Your task to perform on an android device: Clear the shopping cart on amazon. Add "duracell triple a" to the cart on amazon Image 0: 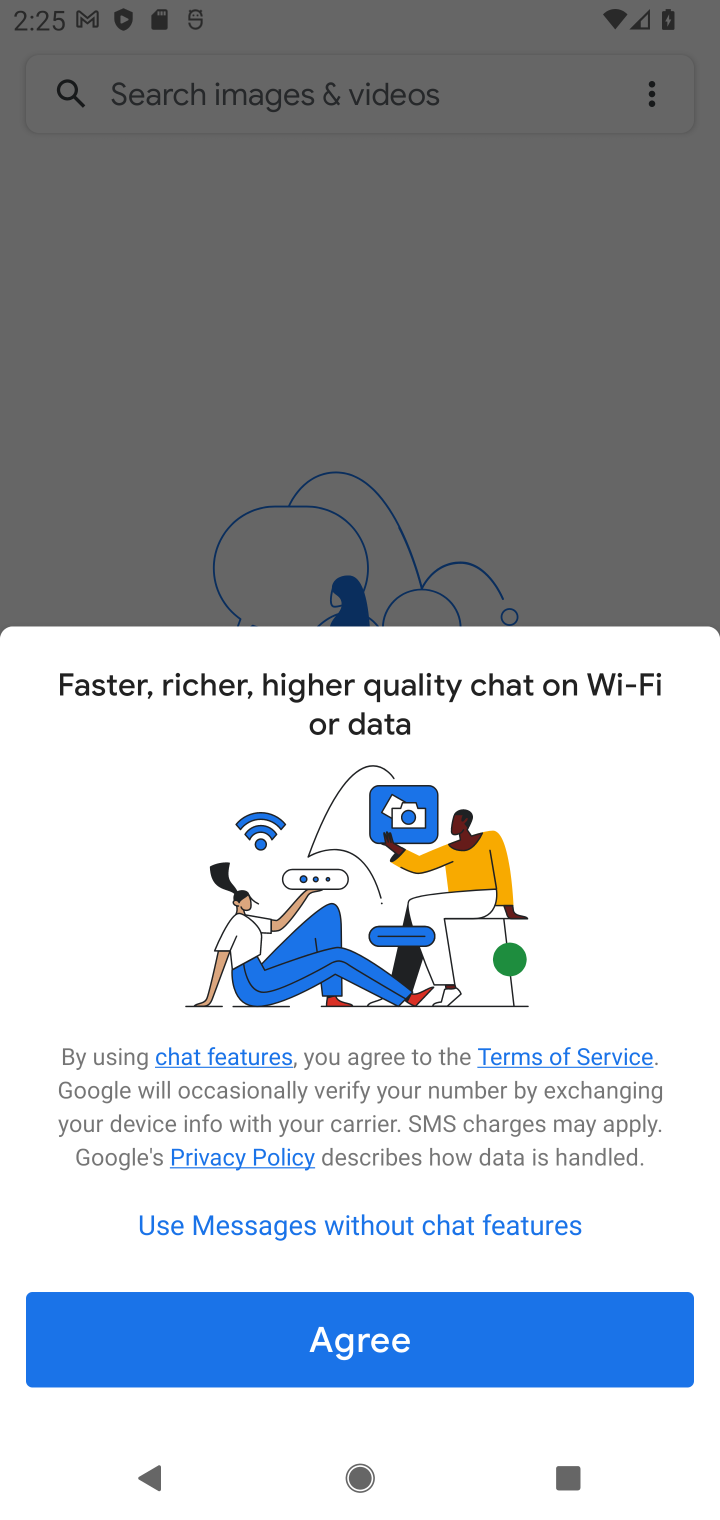
Step 0: press home button
Your task to perform on an android device: Clear the shopping cart on amazon. Add "duracell triple a" to the cart on amazon Image 1: 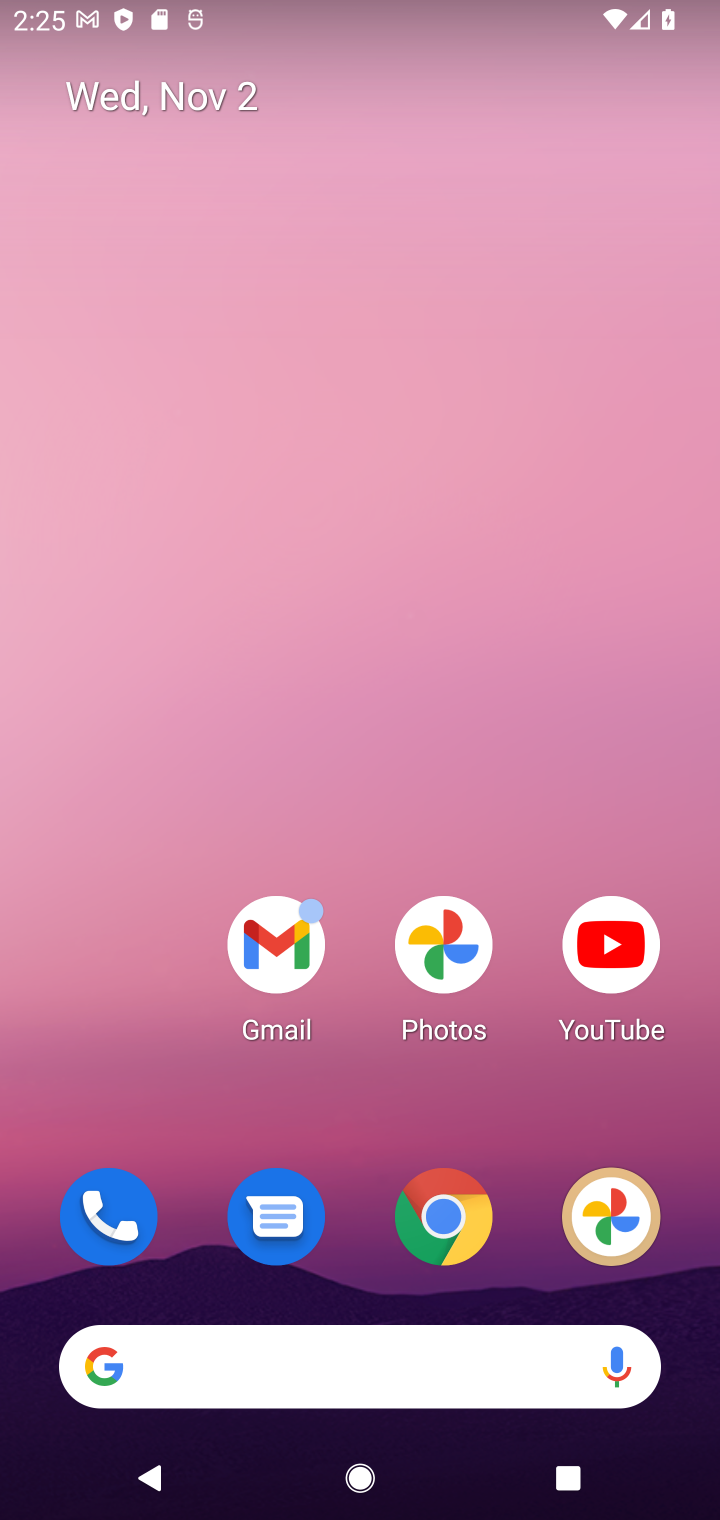
Step 1: click (449, 1219)
Your task to perform on an android device: Clear the shopping cart on amazon. Add "duracell triple a" to the cart on amazon Image 2: 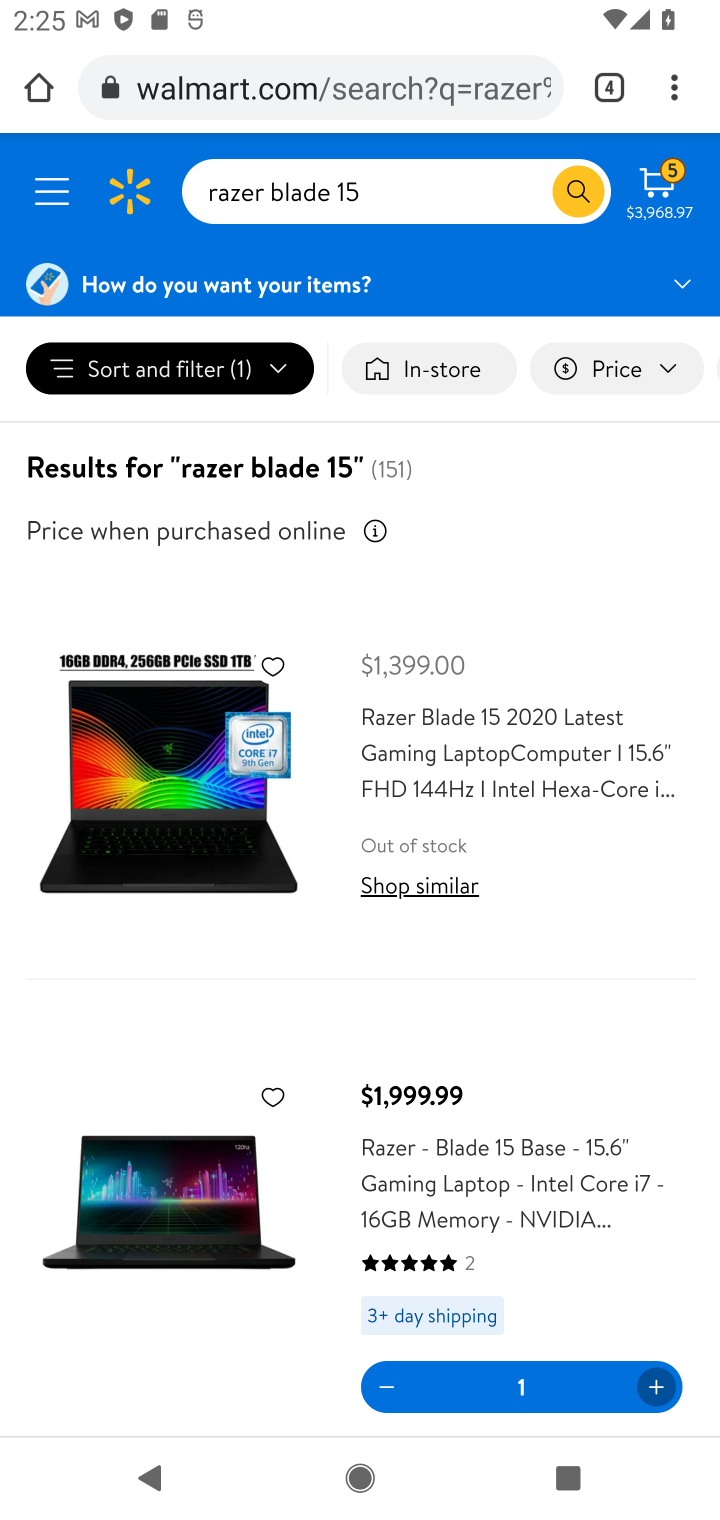
Step 2: click (615, 80)
Your task to perform on an android device: Clear the shopping cart on amazon. Add "duracell triple a" to the cart on amazon Image 3: 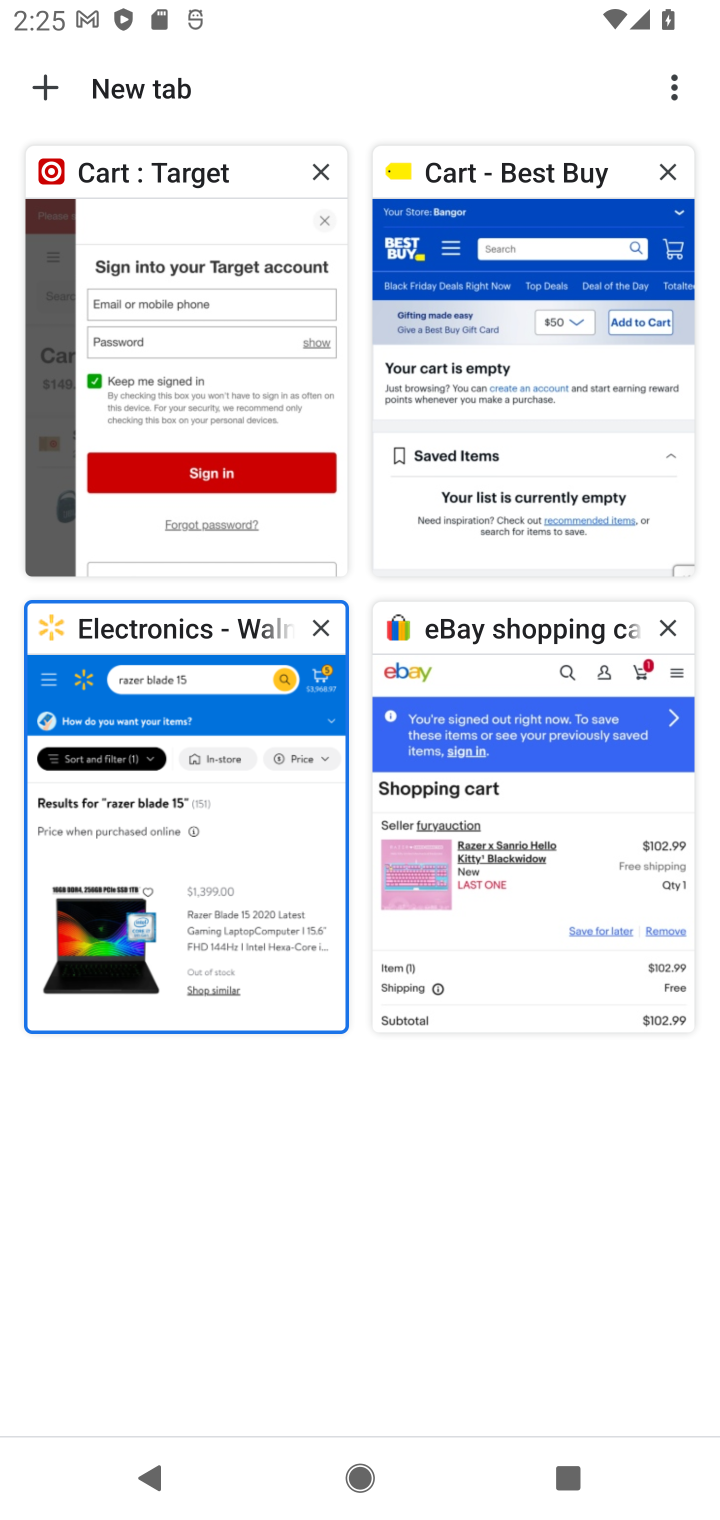
Step 3: click (36, 97)
Your task to perform on an android device: Clear the shopping cart on amazon. Add "duracell triple a" to the cart on amazon Image 4: 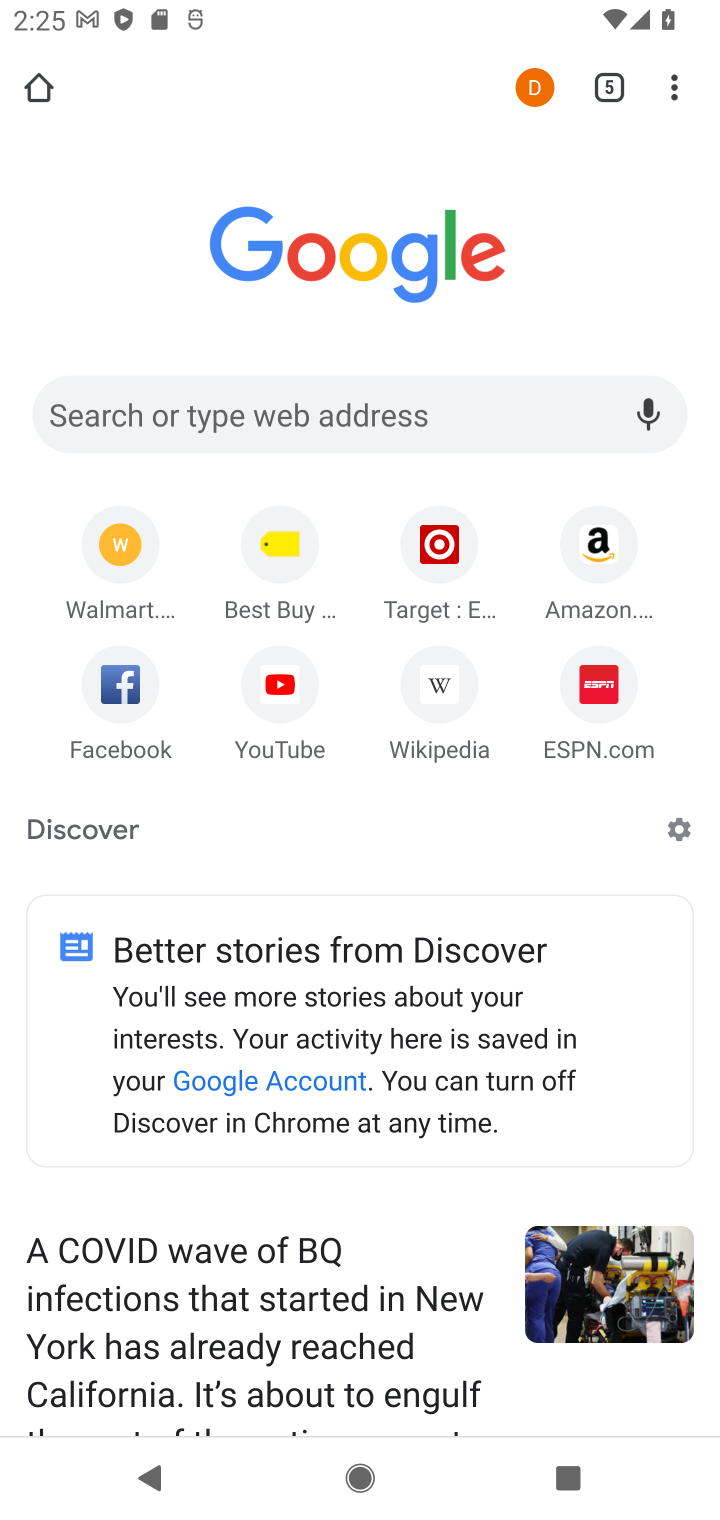
Step 4: click (335, 423)
Your task to perform on an android device: Clear the shopping cart on amazon. Add "duracell triple a" to the cart on amazon Image 5: 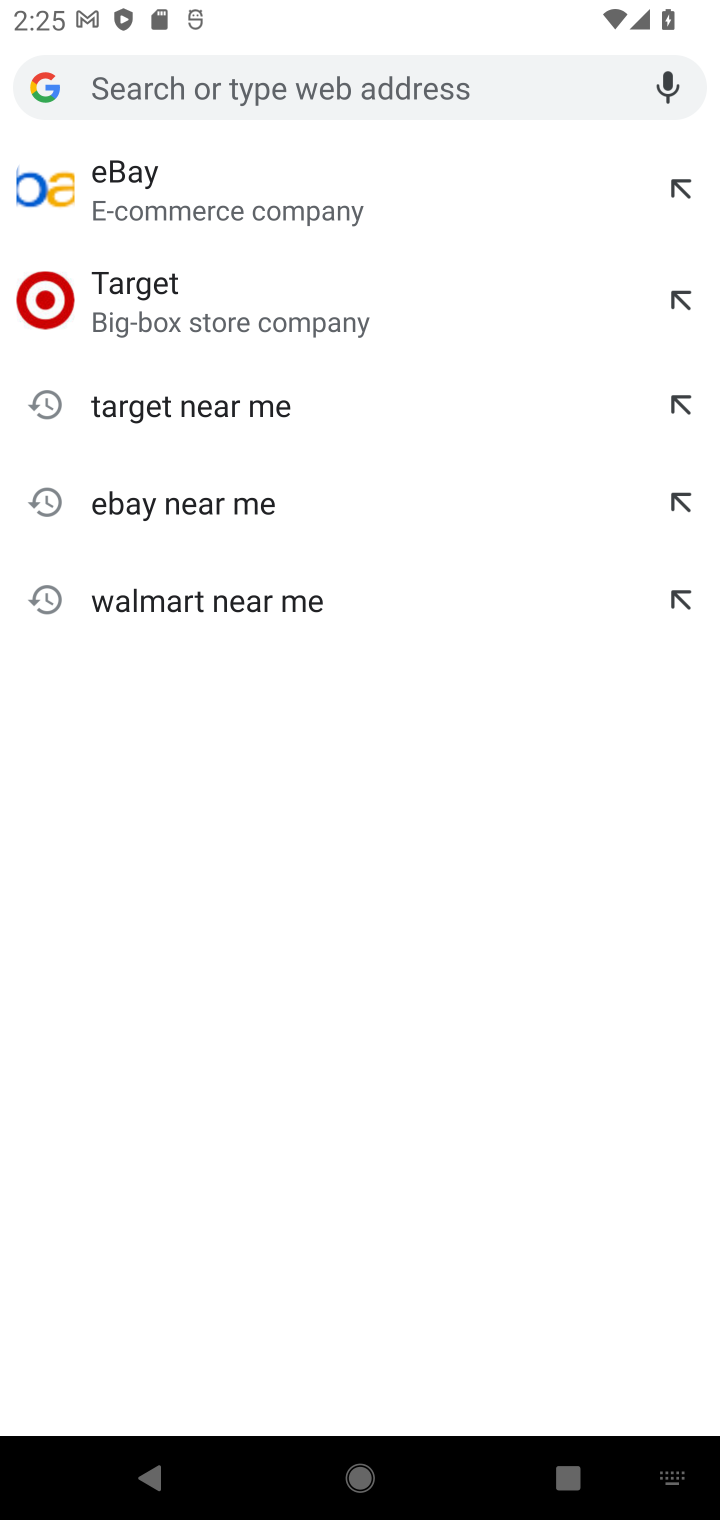
Step 5: type "amazon"
Your task to perform on an android device: Clear the shopping cart on amazon. Add "duracell triple a" to the cart on amazon Image 6: 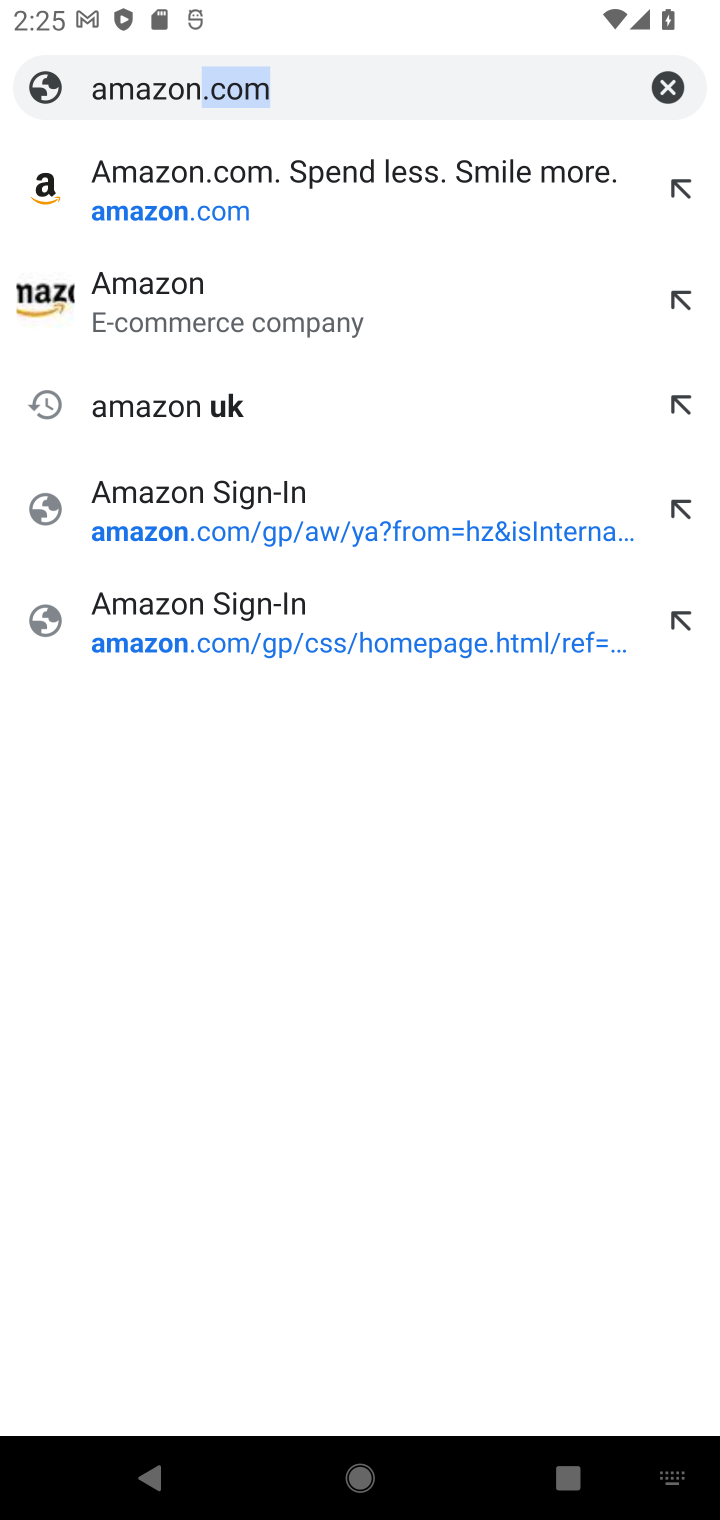
Step 6: click (200, 187)
Your task to perform on an android device: Clear the shopping cart on amazon. Add "duracell triple a" to the cart on amazon Image 7: 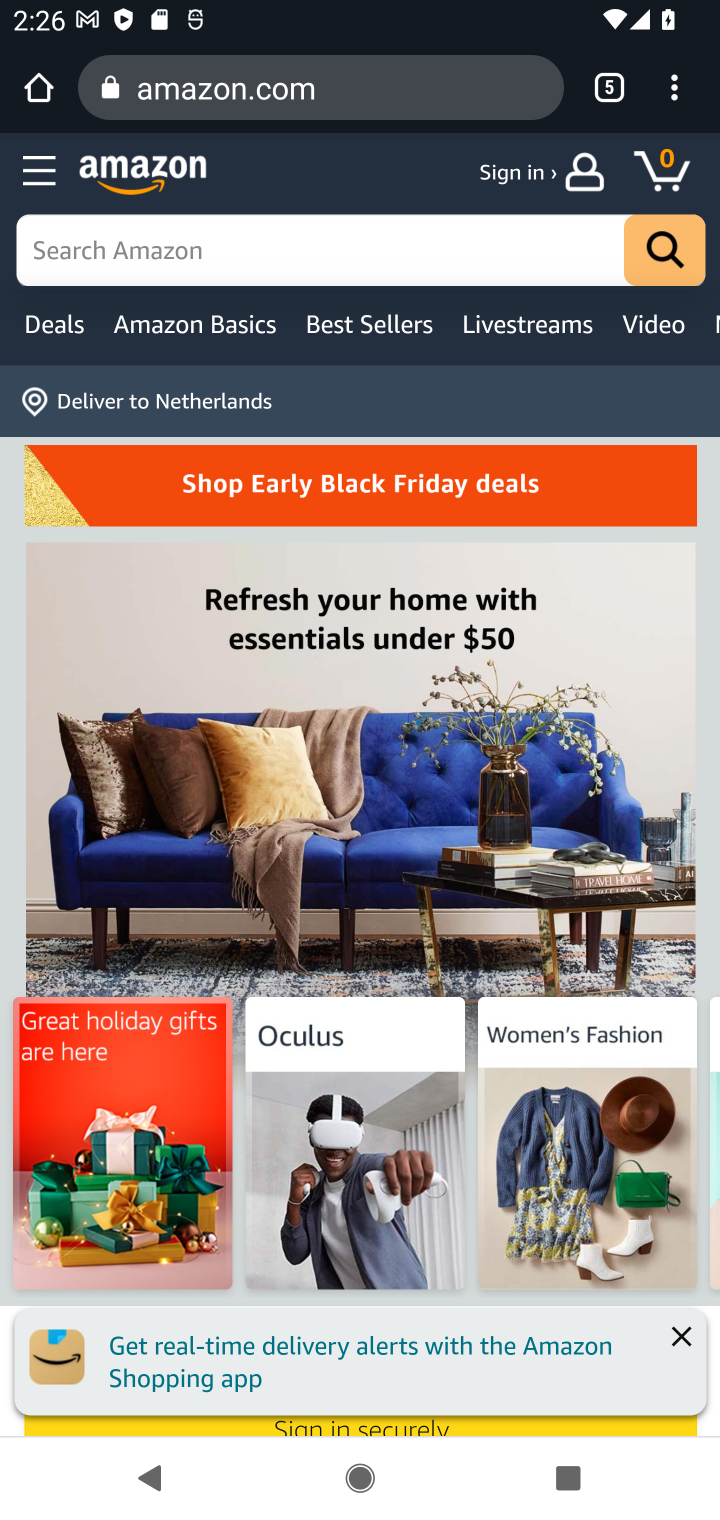
Step 7: click (334, 260)
Your task to perform on an android device: Clear the shopping cart on amazon. Add "duracell triple a" to the cart on amazon Image 8: 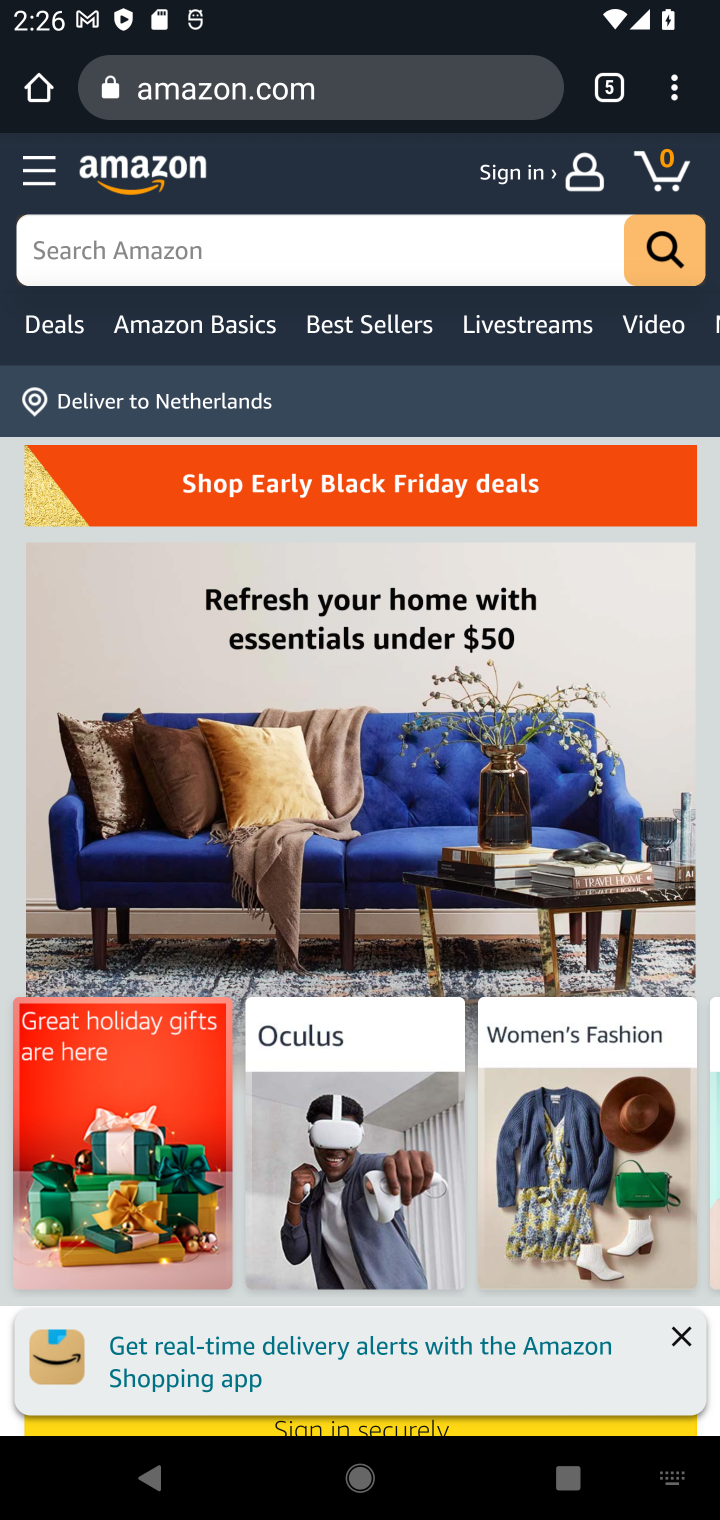
Step 8: type "duracell triple a"
Your task to perform on an android device: Clear the shopping cart on amazon. Add "duracell triple a" to the cart on amazon Image 9: 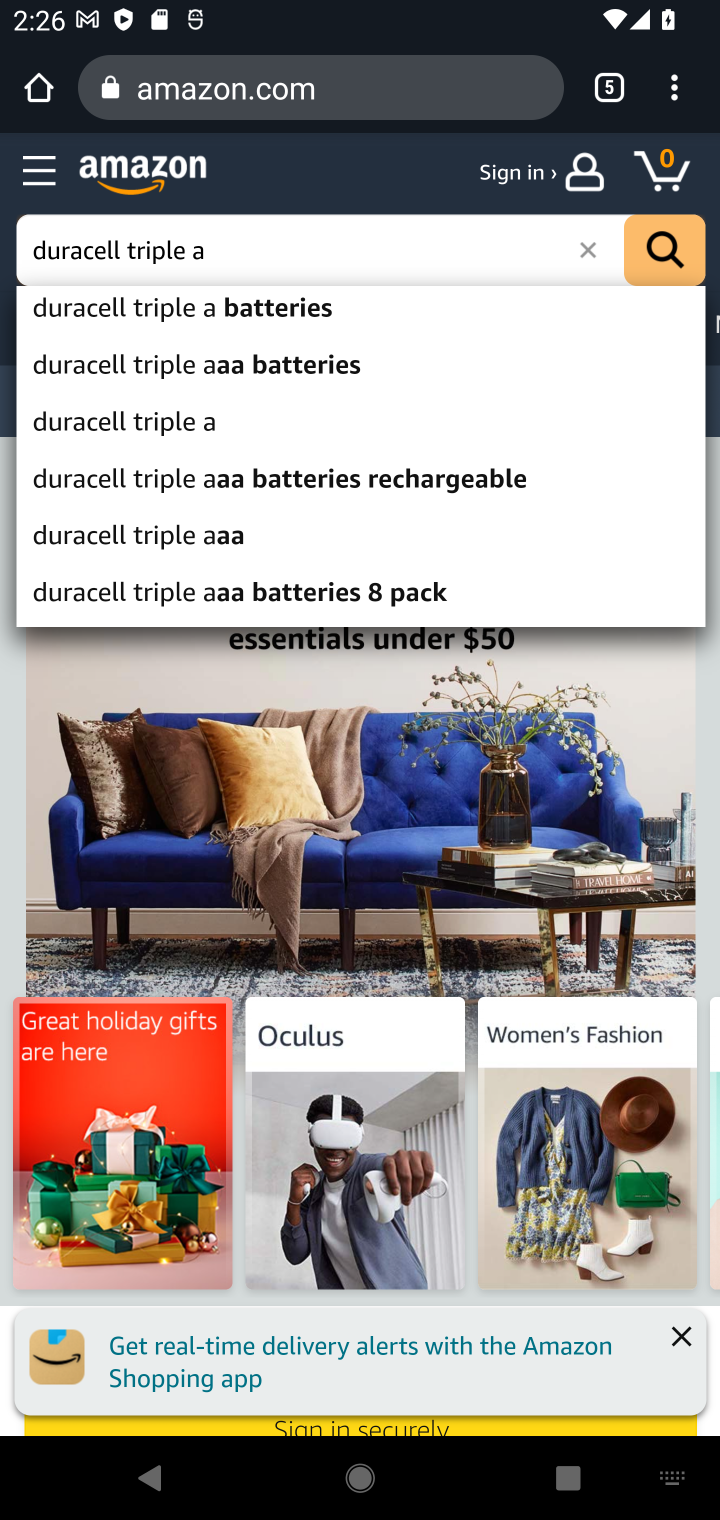
Step 9: click (107, 311)
Your task to perform on an android device: Clear the shopping cart on amazon. Add "duracell triple a" to the cart on amazon Image 10: 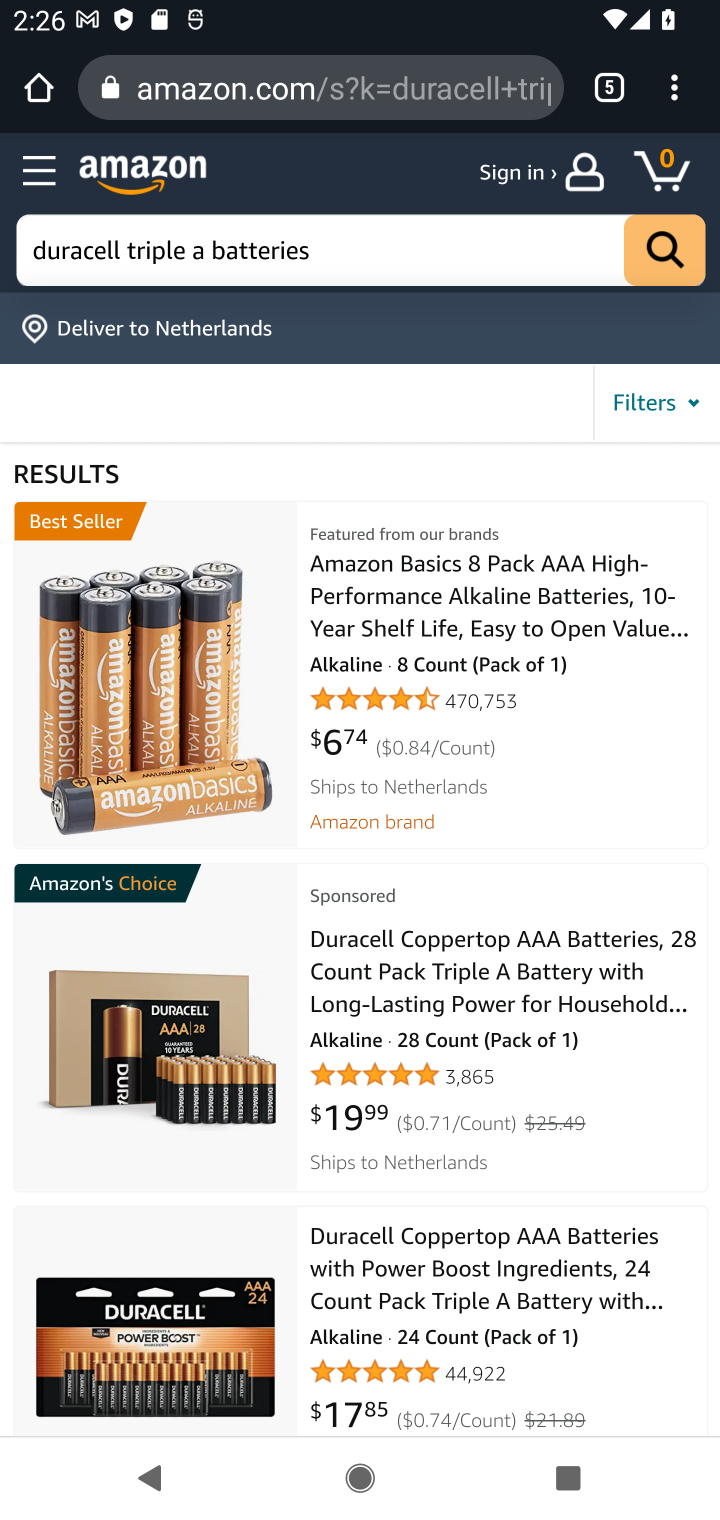
Step 10: click (519, 972)
Your task to perform on an android device: Clear the shopping cart on amazon. Add "duracell triple a" to the cart on amazon Image 11: 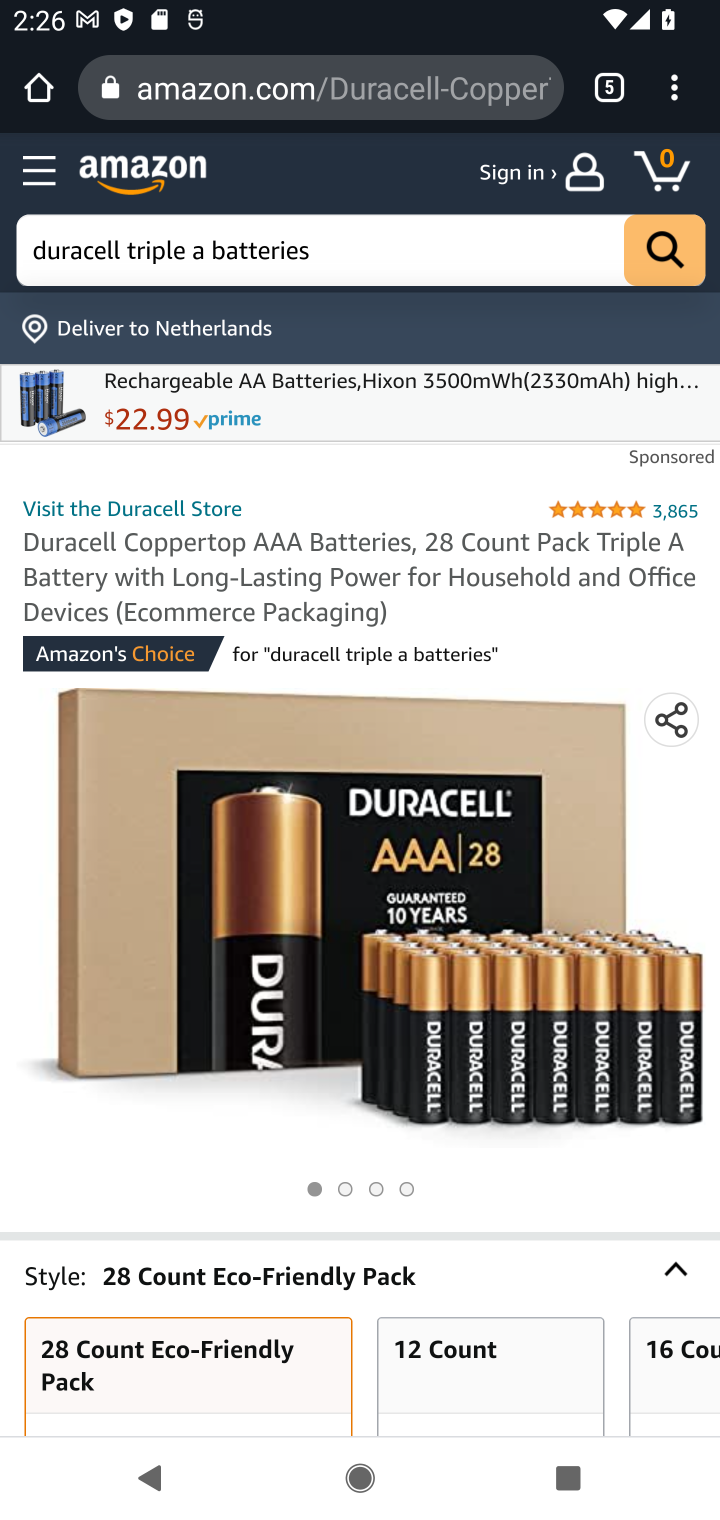
Step 11: drag from (489, 1412) to (644, 132)
Your task to perform on an android device: Clear the shopping cart on amazon. Add "duracell triple a" to the cart on amazon Image 12: 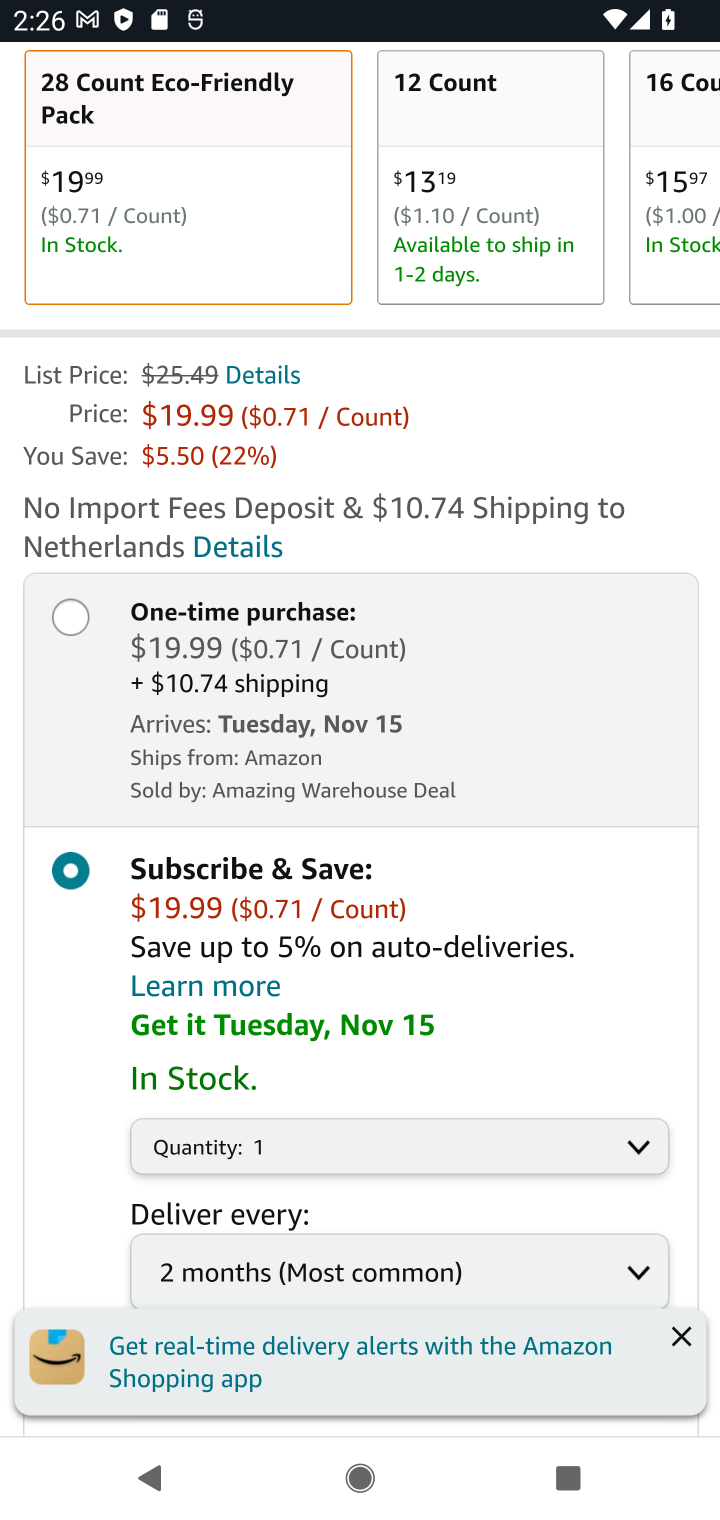
Step 12: drag from (425, 1110) to (559, 193)
Your task to perform on an android device: Clear the shopping cart on amazon. Add "duracell triple a" to the cart on amazon Image 13: 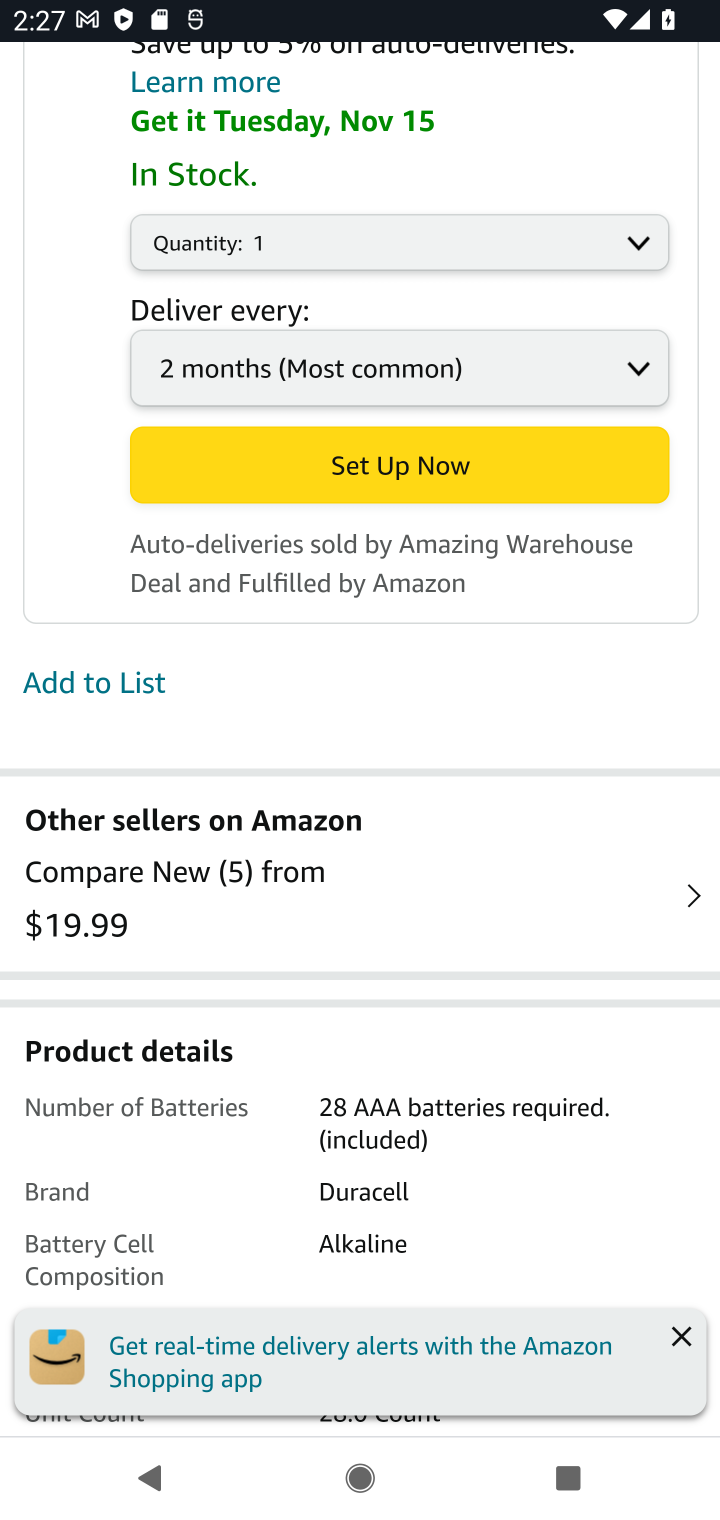
Step 13: drag from (498, 890) to (484, 744)
Your task to perform on an android device: Clear the shopping cart on amazon. Add "duracell triple a" to the cart on amazon Image 14: 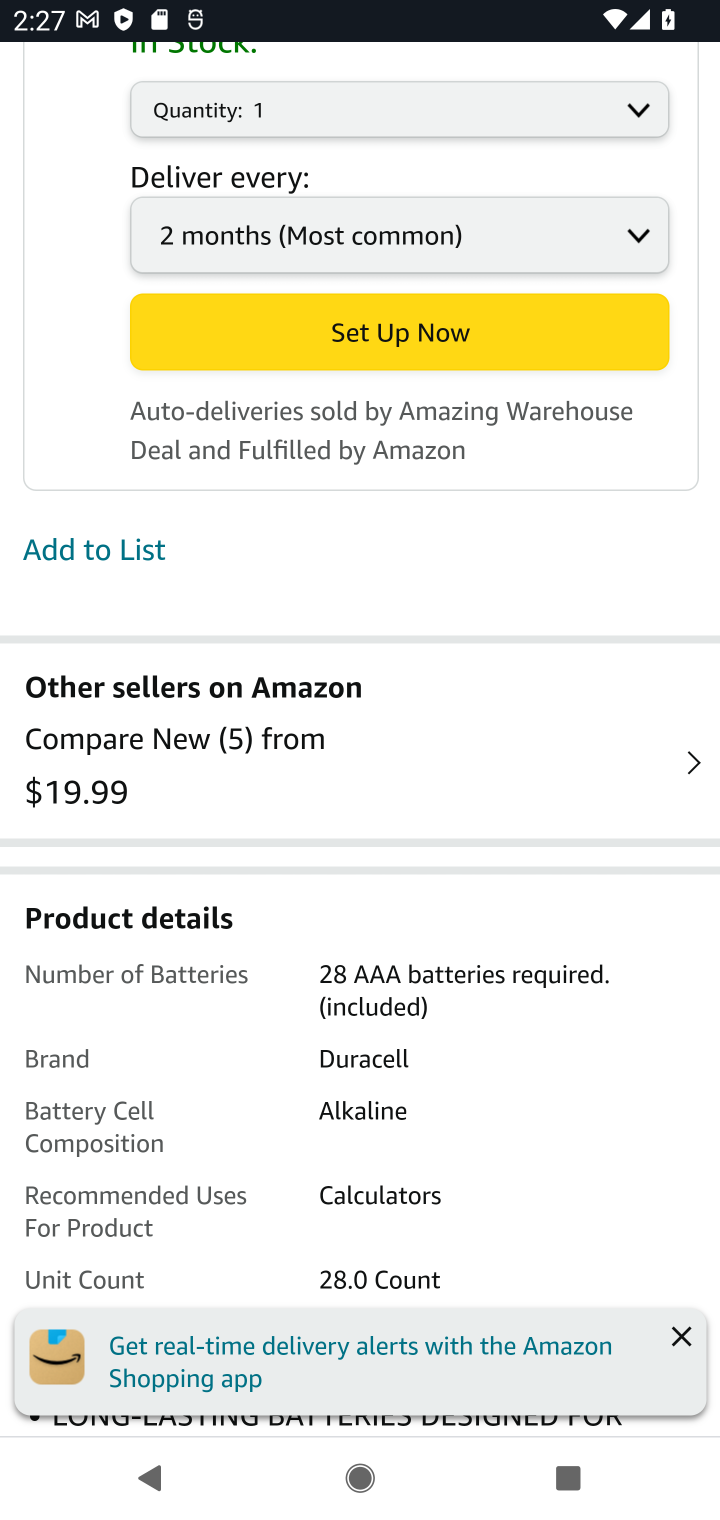
Step 14: click (130, 547)
Your task to perform on an android device: Clear the shopping cart on amazon. Add "duracell triple a" to the cart on amazon Image 15: 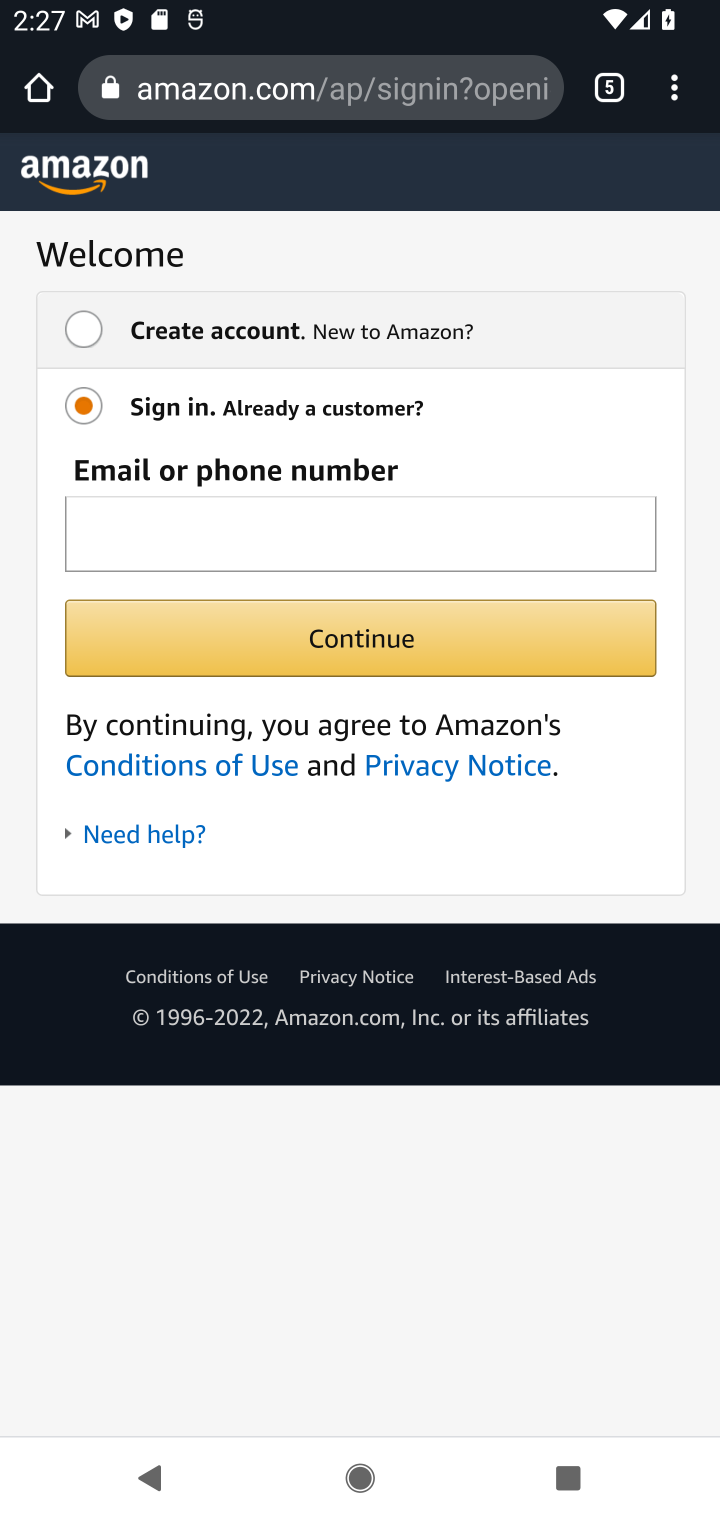
Step 15: task complete